Your task to perform on an android device: turn off javascript in the chrome app Image 0: 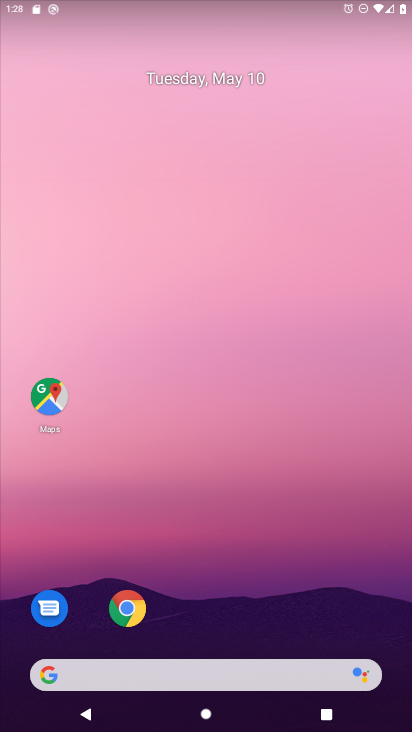
Step 0: drag from (309, 604) to (282, 176)
Your task to perform on an android device: turn off javascript in the chrome app Image 1: 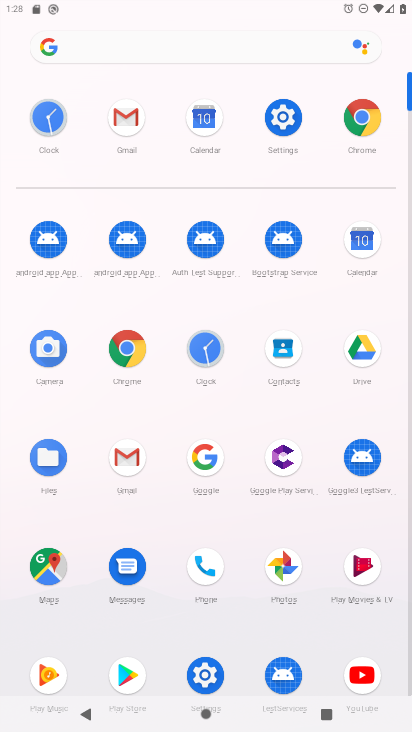
Step 1: click (135, 359)
Your task to perform on an android device: turn off javascript in the chrome app Image 2: 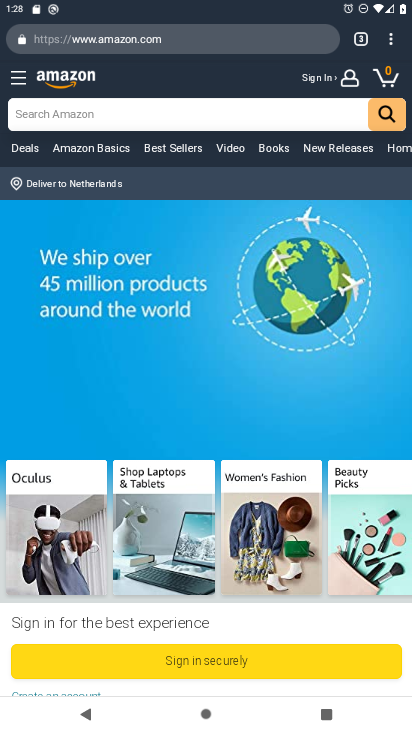
Step 2: drag from (395, 53) to (292, 464)
Your task to perform on an android device: turn off javascript in the chrome app Image 3: 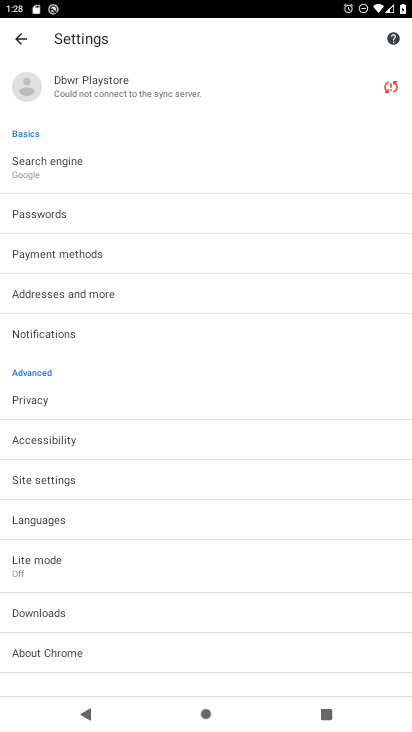
Step 3: click (65, 484)
Your task to perform on an android device: turn off javascript in the chrome app Image 4: 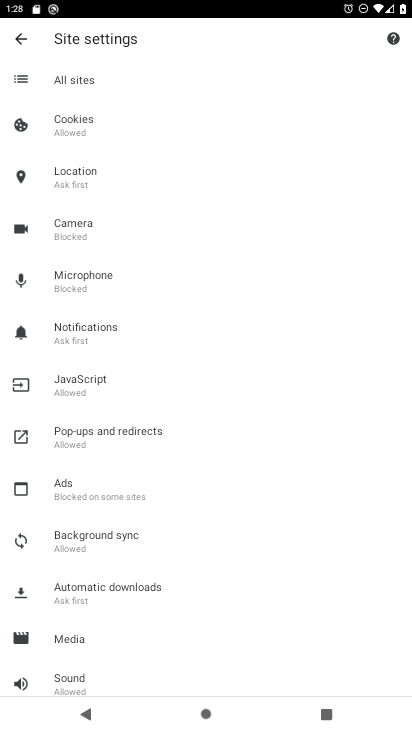
Step 4: click (100, 382)
Your task to perform on an android device: turn off javascript in the chrome app Image 5: 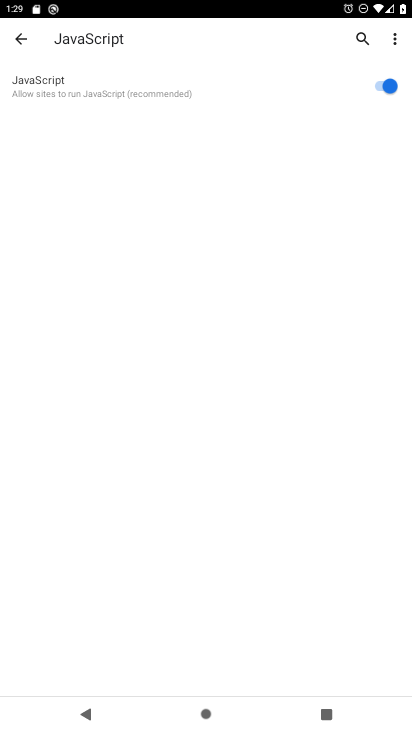
Step 5: click (379, 84)
Your task to perform on an android device: turn off javascript in the chrome app Image 6: 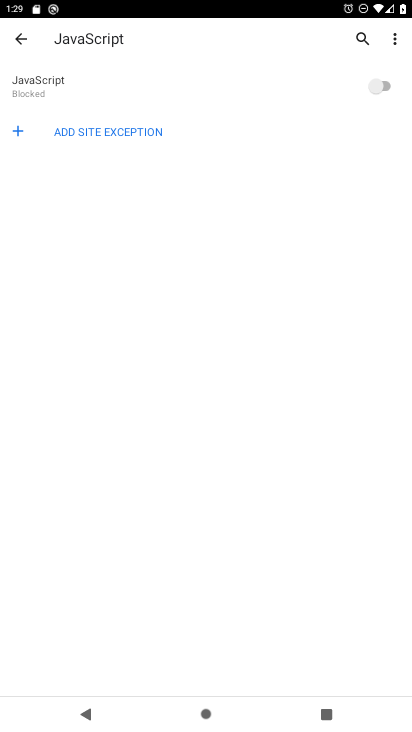
Step 6: task complete